Your task to perform on an android device: toggle translation in the chrome app Image 0: 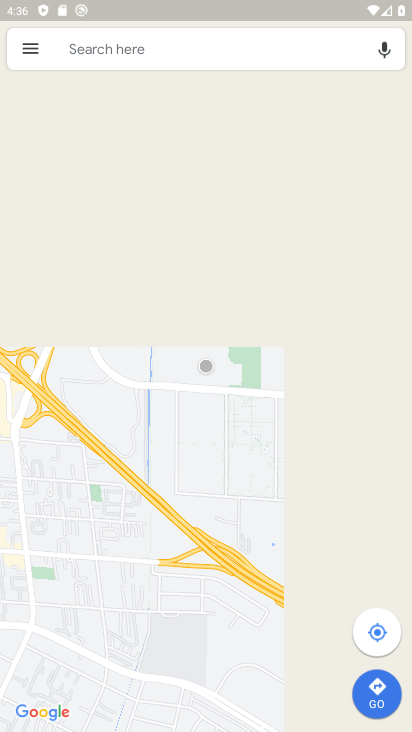
Step 0: press home button
Your task to perform on an android device: toggle translation in the chrome app Image 1: 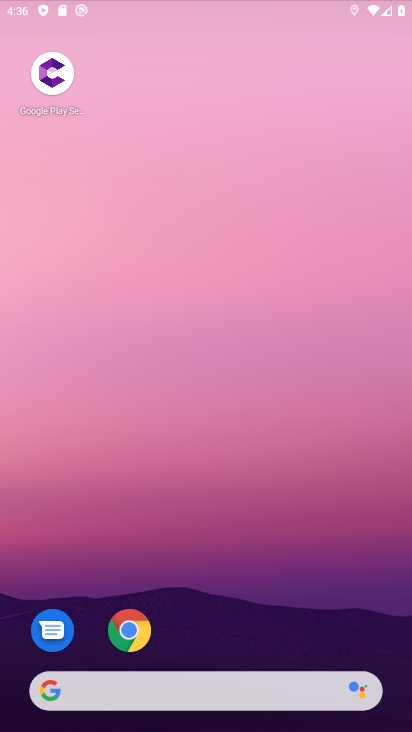
Step 1: drag from (226, 702) to (226, 331)
Your task to perform on an android device: toggle translation in the chrome app Image 2: 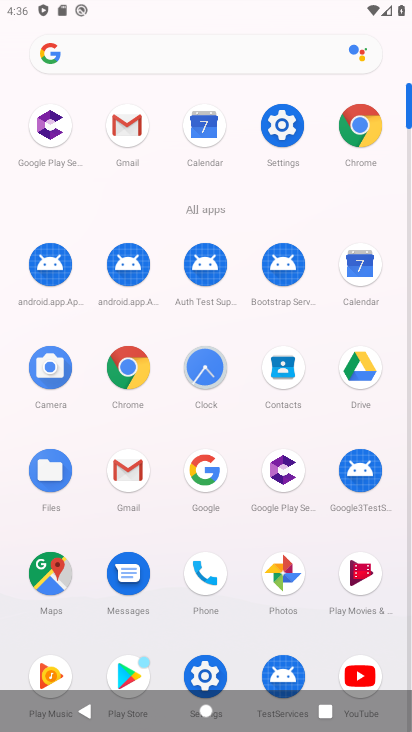
Step 2: click (364, 120)
Your task to perform on an android device: toggle translation in the chrome app Image 3: 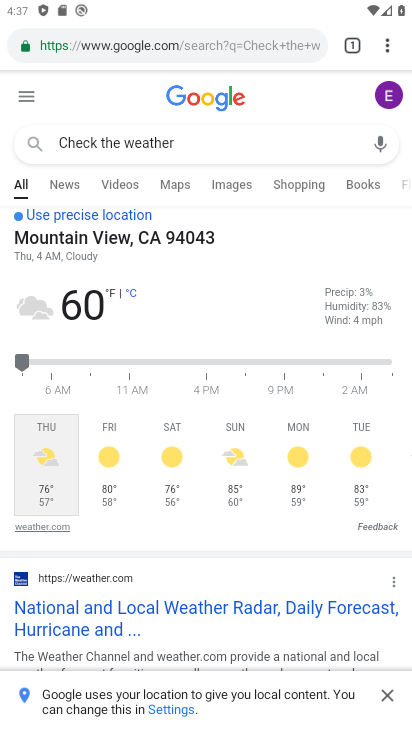
Step 3: click (380, 44)
Your task to perform on an android device: toggle translation in the chrome app Image 4: 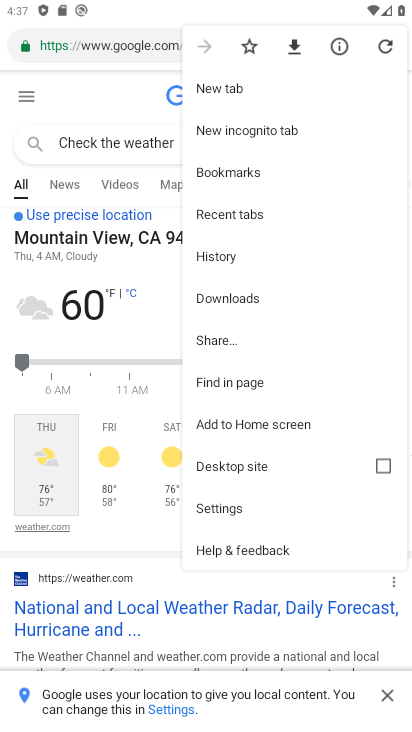
Step 4: click (243, 499)
Your task to perform on an android device: toggle translation in the chrome app Image 5: 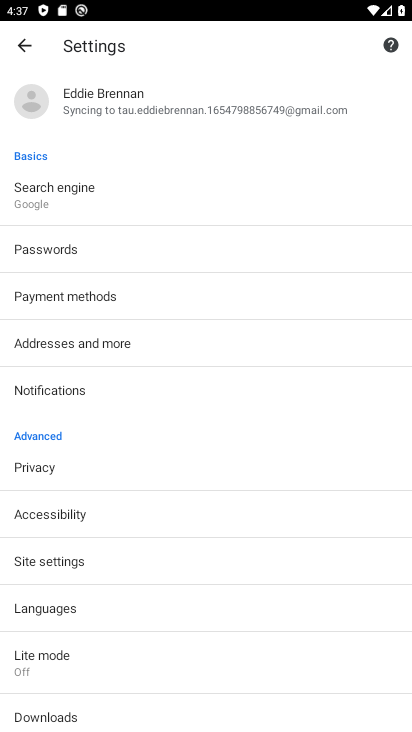
Step 5: drag from (134, 613) to (164, 344)
Your task to perform on an android device: toggle translation in the chrome app Image 6: 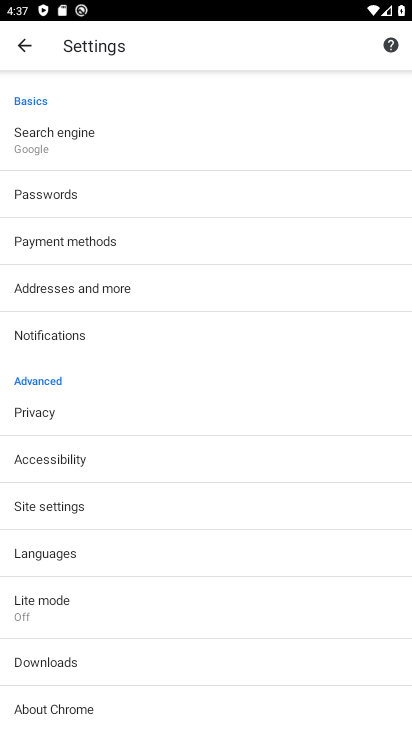
Step 6: click (113, 540)
Your task to perform on an android device: toggle translation in the chrome app Image 7: 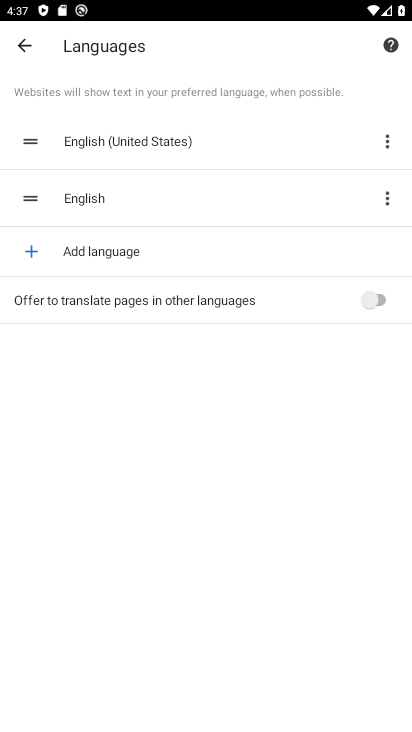
Step 7: click (386, 291)
Your task to perform on an android device: toggle translation in the chrome app Image 8: 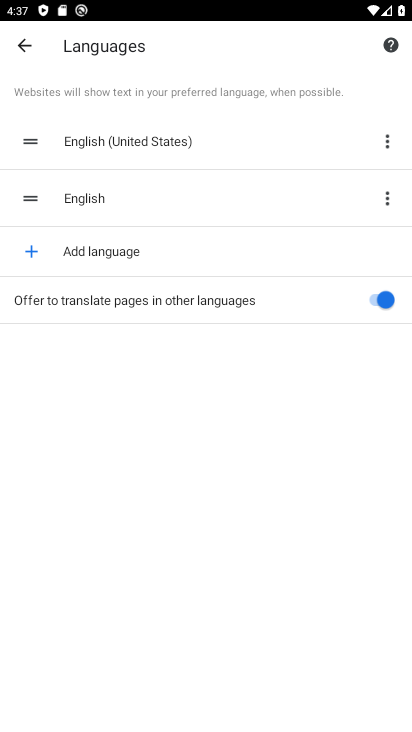
Step 8: task complete